Your task to perform on an android device: star an email in the gmail app Image 0: 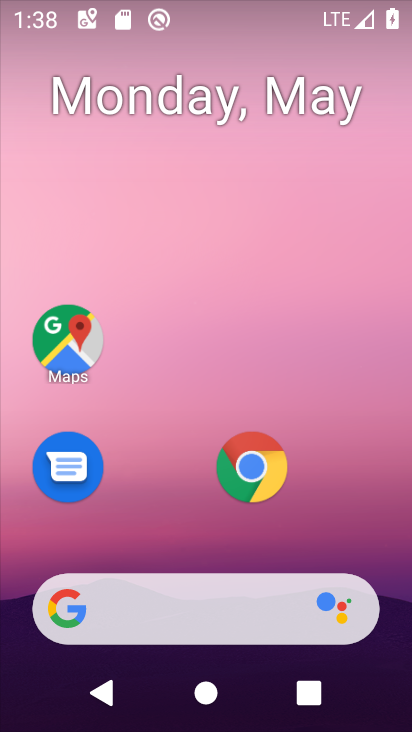
Step 0: click (57, 341)
Your task to perform on an android device: star an email in the gmail app Image 1: 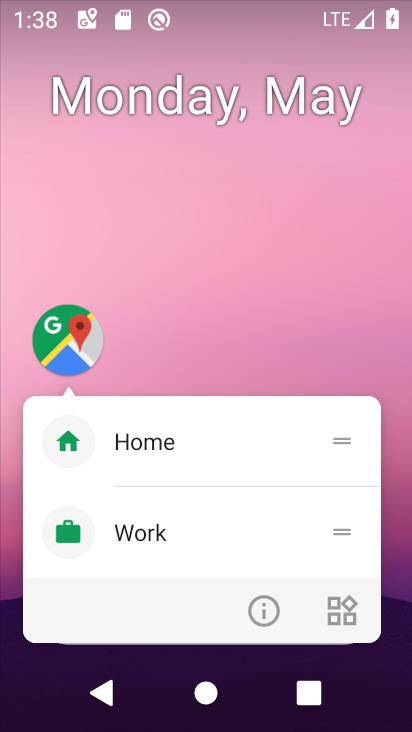
Step 1: click (299, 292)
Your task to perform on an android device: star an email in the gmail app Image 2: 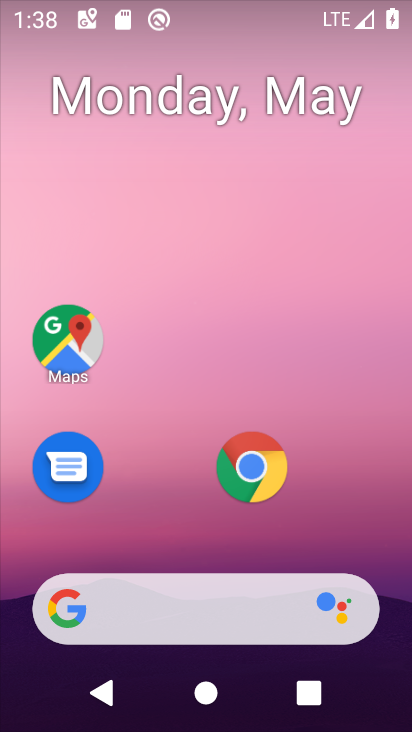
Step 2: drag from (176, 574) to (225, 169)
Your task to perform on an android device: star an email in the gmail app Image 3: 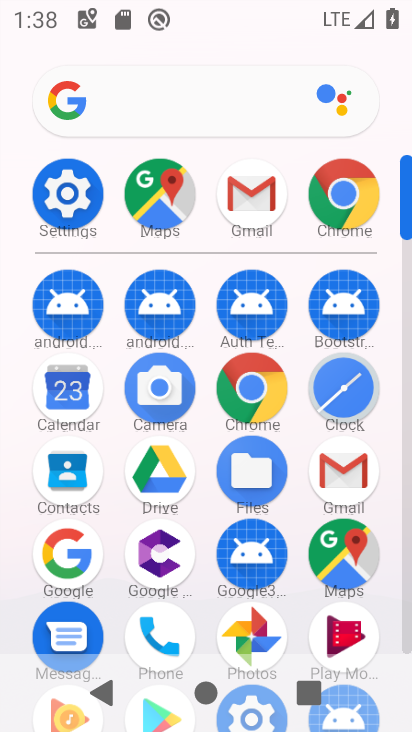
Step 3: click (347, 474)
Your task to perform on an android device: star an email in the gmail app Image 4: 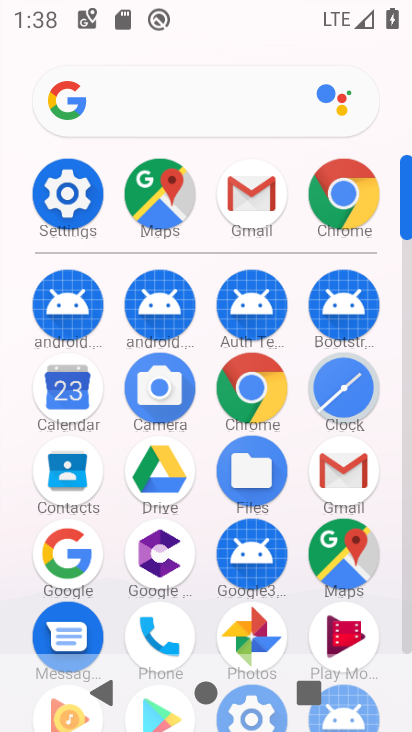
Step 4: click (347, 474)
Your task to perform on an android device: star an email in the gmail app Image 5: 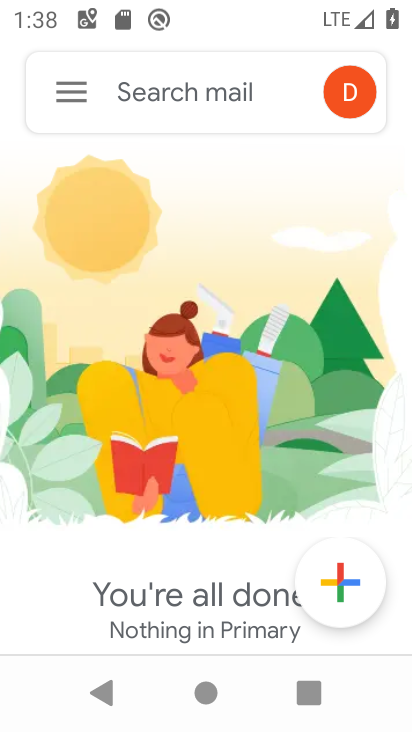
Step 5: click (74, 98)
Your task to perform on an android device: star an email in the gmail app Image 6: 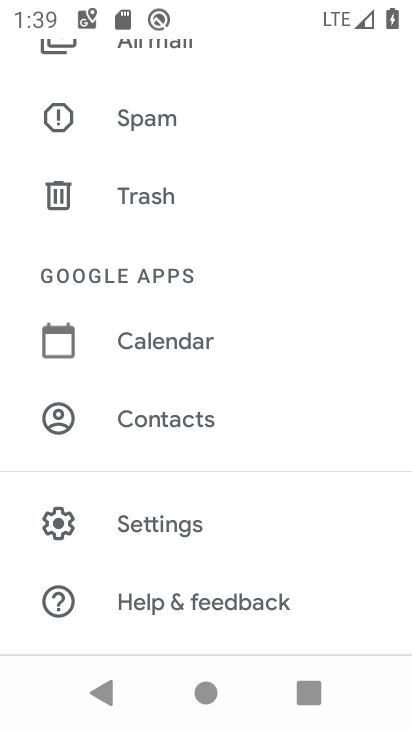
Step 6: drag from (239, 135) to (246, 730)
Your task to perform on an android device: star an email in the gmail app Image 7: 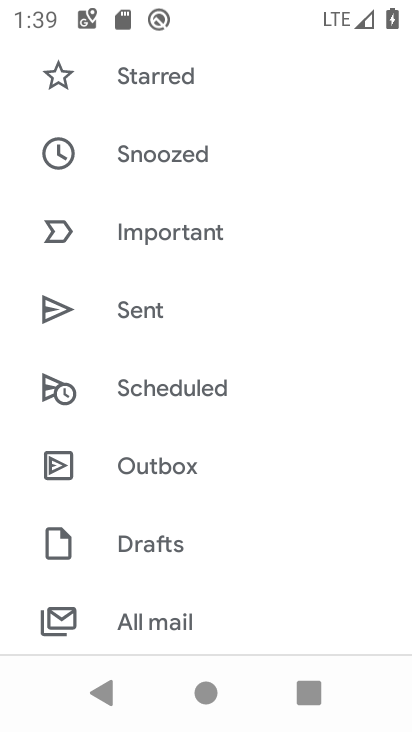
Step 7: drag from (285, 132) to (300, 642)
Your task to perform on an android device: star an email in the gmail app Image 8: 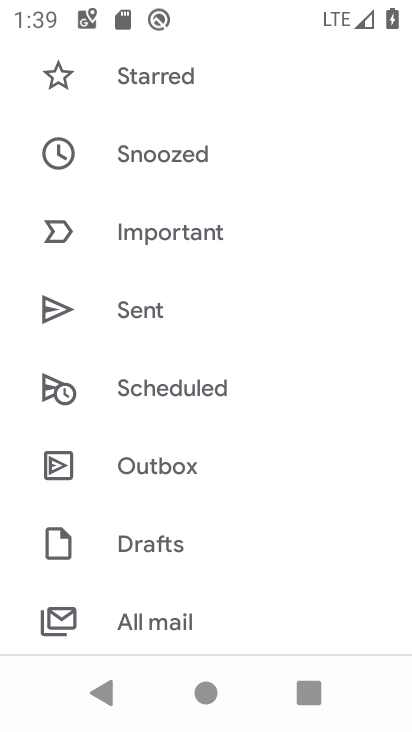
Step 8: click (161, 86)
Your task to perform on an android device: star an email in the gmail app Image 9: 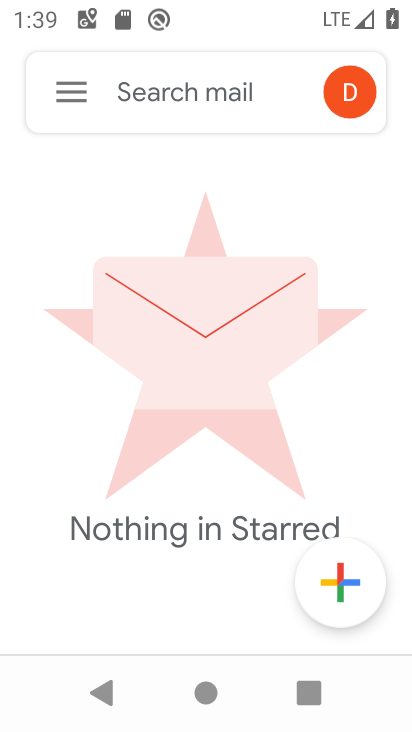
Step 9: task complete